Your task to perform on an android device: Open calendar and show me the second week of next month Image 0: 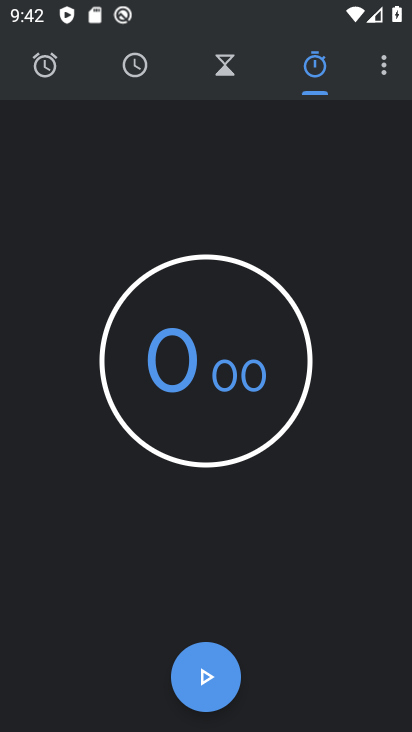
Step 0: press back button
Your task to perform on an android device: Open calendar and show me the second week of next month Image 1: 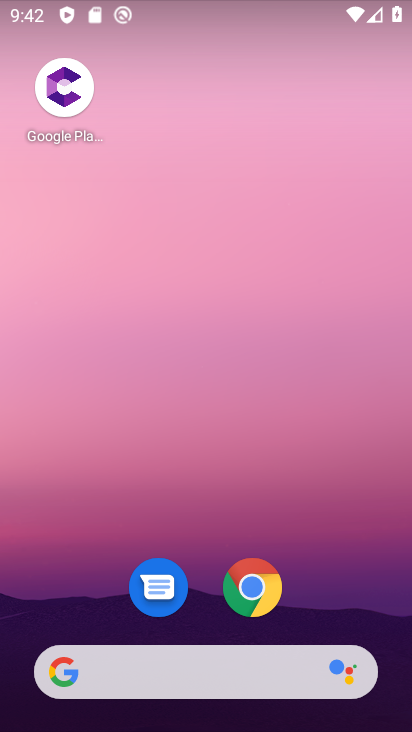
Step 1: drag from (326, 583) to (277, 1)
Your task to perform on an android device: Open calendar and show me the second week of next month Image 2: 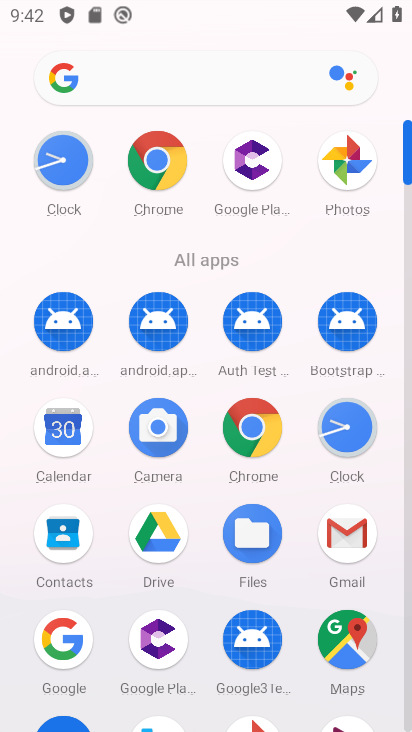
Step 2: drag from (21, 575) to (27, 222)
Your task to perform on an android device: Open calendar and show me the second week of next month Image 3: 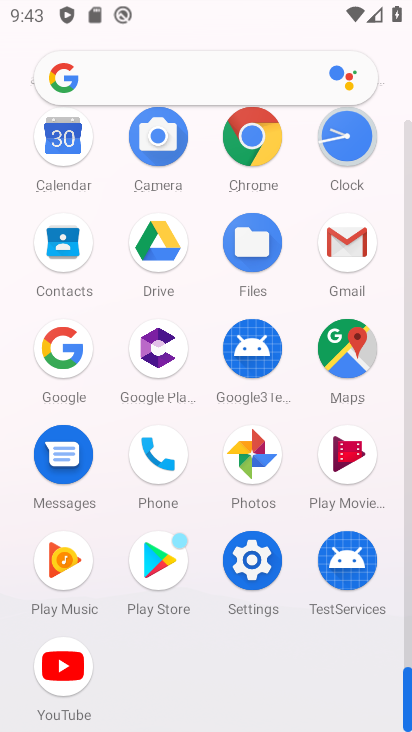
Step 3: click (62, 135)
Your task to perform on an android device: Open calendar and show me the second week of next month Image 4: 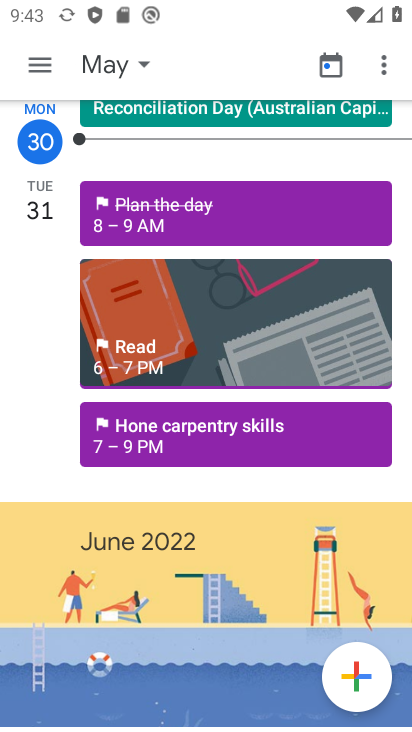
Step 4: click (114, 59)
Your task to perform on an android device: Open calendar and show me the second week of next month Image 5: 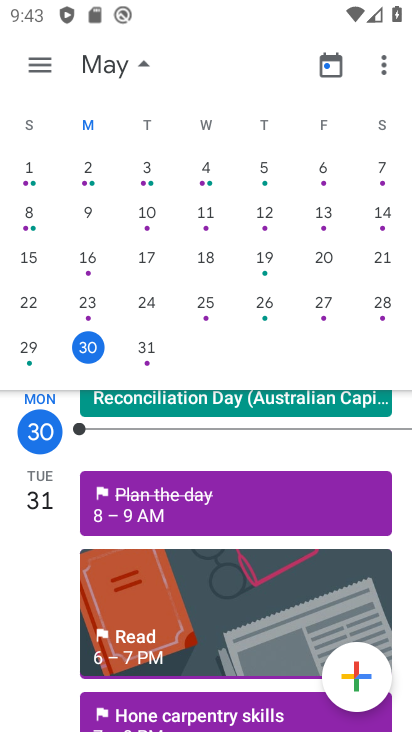
Step 5: drag from (366, 256) to (6, 218)
Your task to perform on an android device: Open calendar and show me the second week of next month Image 6: 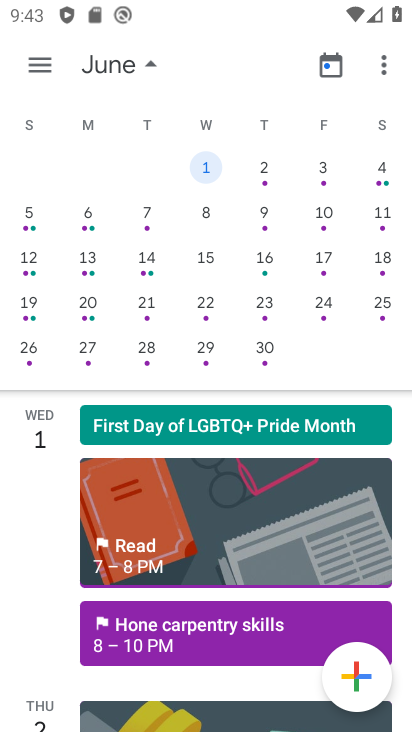
Step 6: click (19, 205)
Your task to perform on an android device: Open calendar and show me the second week of next month Image 7: 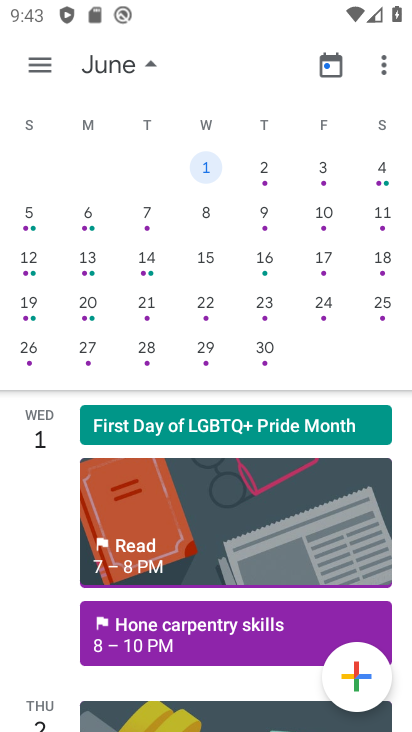
Step 7: click (26, 211)
Your task to perform on an android device: Open calendar and show me the second week of next month Image 8: 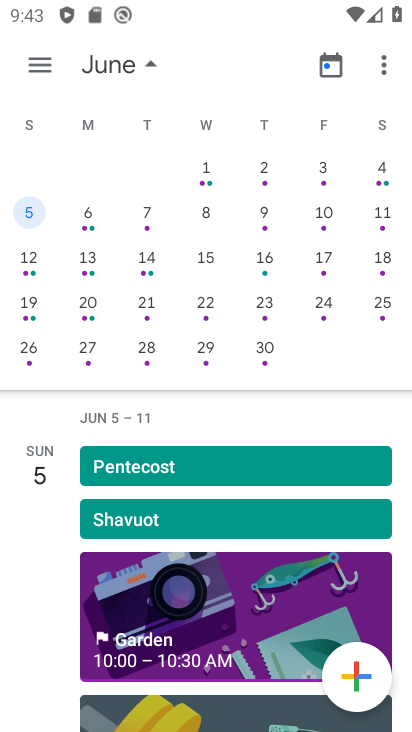
Step 8: click (41, 57)
Your task to perform on an android device: Open calendar and show me the second week of next month Image 9: 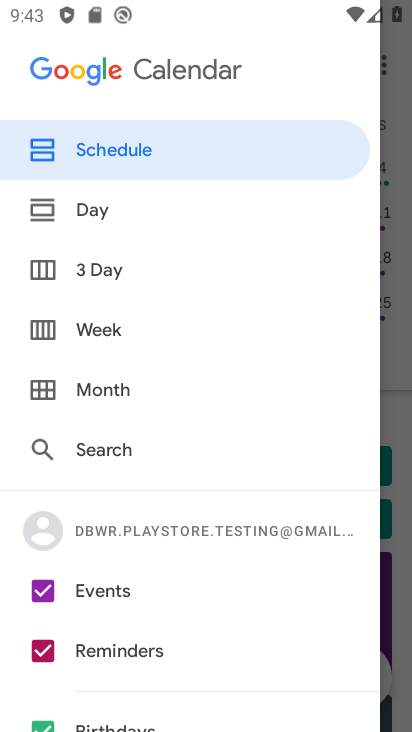
Step 9: click (97, 321)
Your task to perform on an android device: Open calendar and show me the second week of next month Image 10: 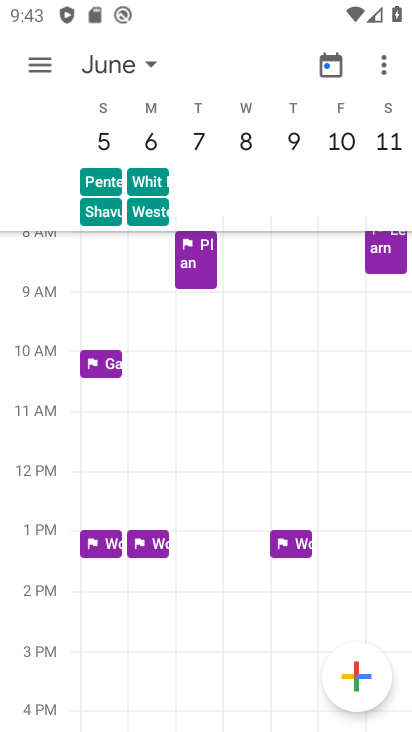
Step 10: task complete